Your task to perform on an android device: allow cookies in the chrome app Image 0: 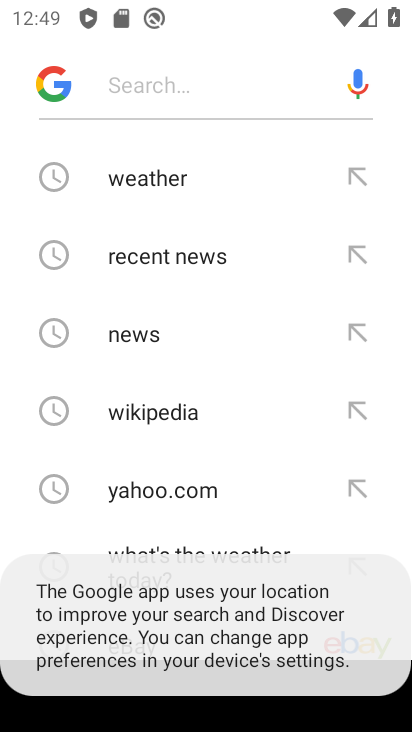
Step 0: press back button
Your task to perform on an android device: allow cookies in the chrome app Image 1: 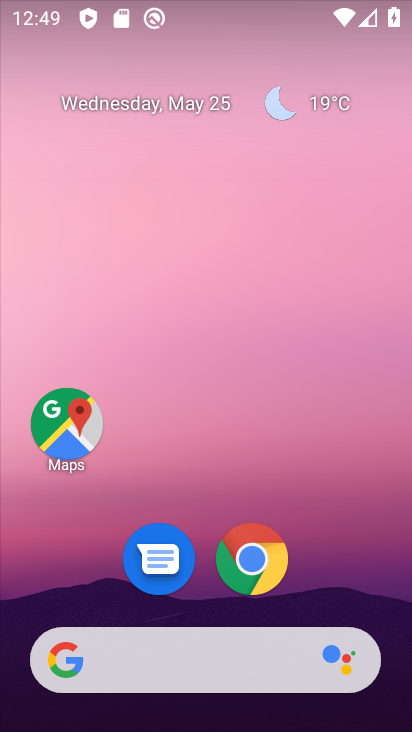
Step 1: click (235, 566)
Your task to perform on an android device: allow cookies in the chrome app Image 2: 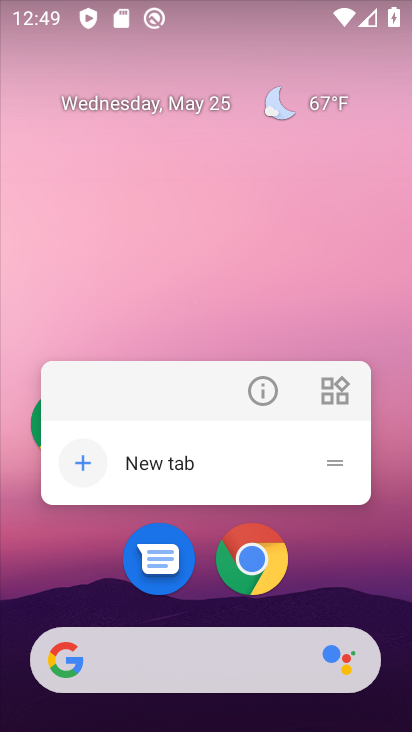
Step 2: click (231, 569)
Your task to perform on an android device: allow cookies in the chrome app Image 3: 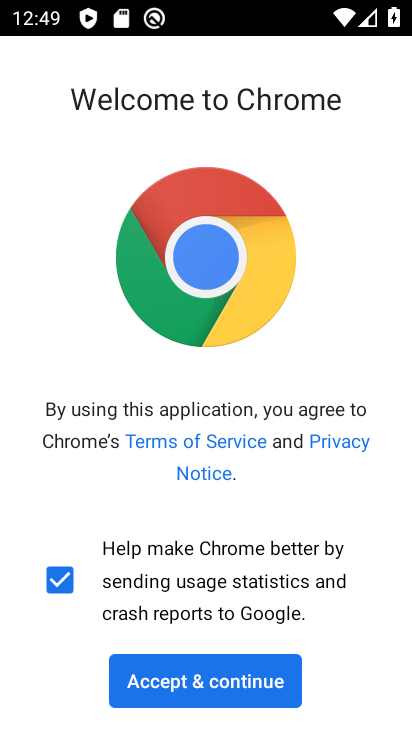
Step 3: click (247, 691)
Your task to perform on an android device: allow cookies in the chrome app Image 4: 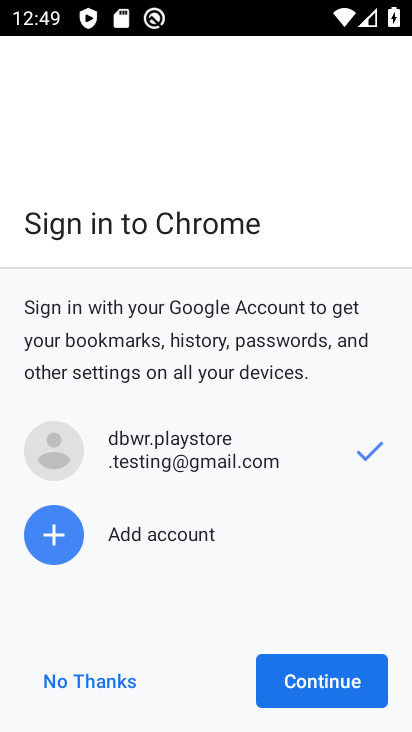
Step 4: click (360, 699)
Your task to perform on an android device: allow cookies in the chrome app Image 5: 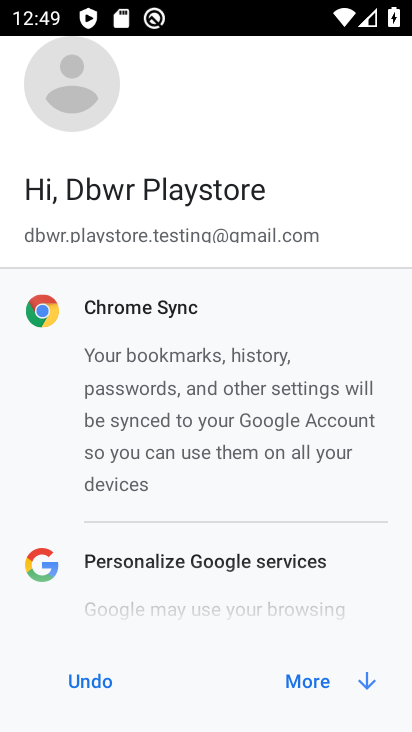
Step 5: click (353, 689)
Your task to perform on an android device: allow cookies in the chrome app Image 6: 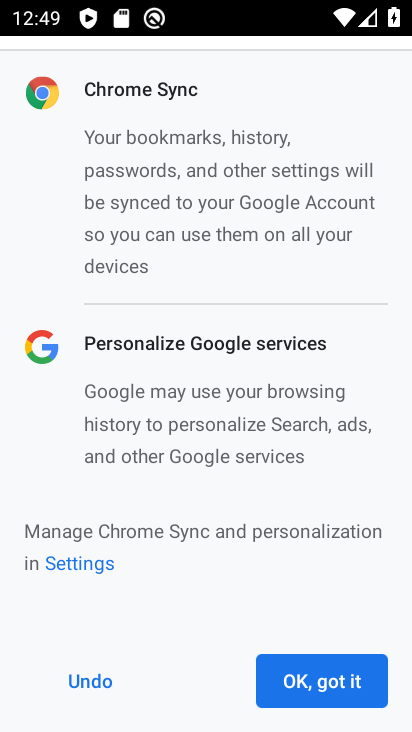
Step 6: click (353, 689)
Your task to perform on an android device: allow cookies in the chrome app Image 7: 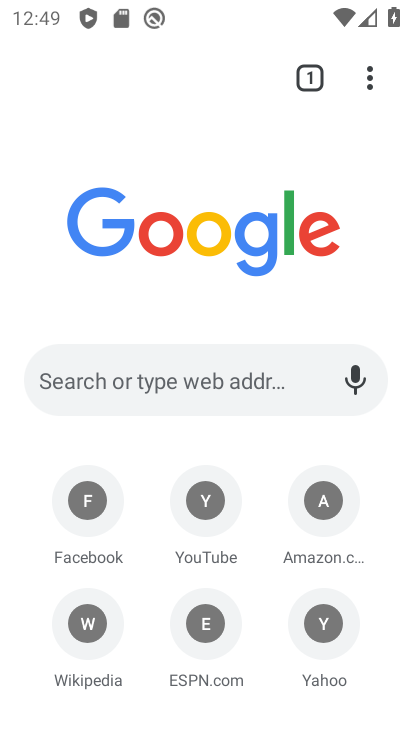
Step 7: drag from (368, 79) to (166, 602)
Your task to perform on an android device: allow cookies in the chrome app Image 8: 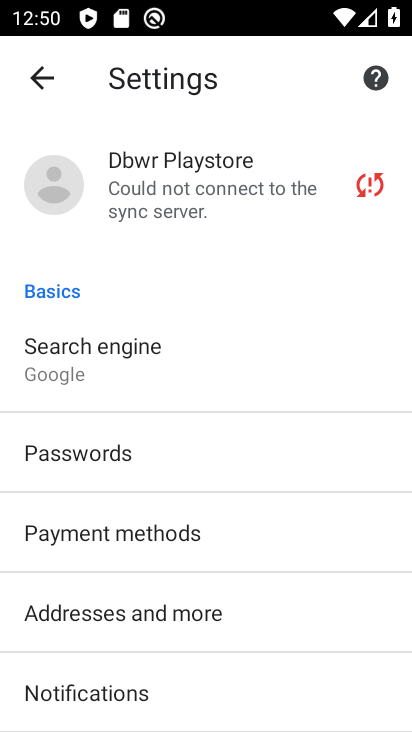
Step 8: drag from (172, 622) to (259, 273)
Your task to perform on an android device: allow cookies in the chrome app Image 9: 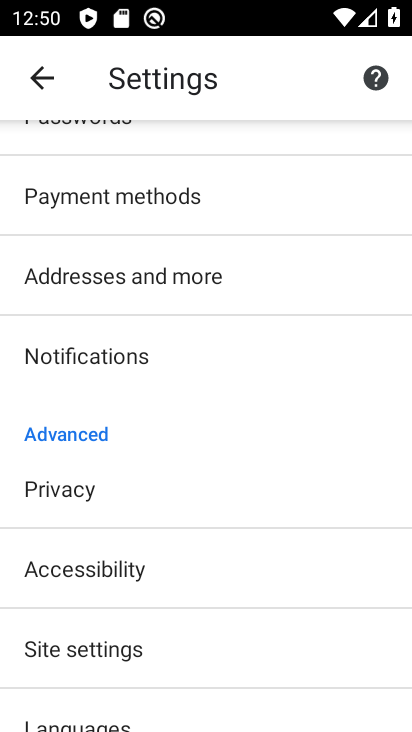
Step 9: click (160, 638)
Your task to perform on an android device: allow cookies in the chrome app Image 10: 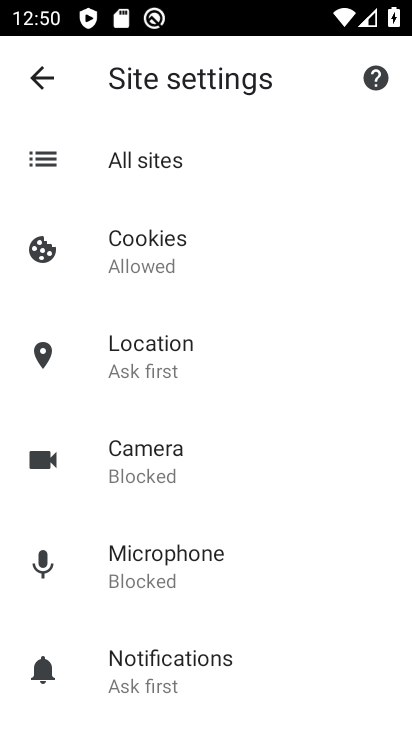
Step 10: task complete